Your task to perform on an android device: turn on priority inbox in the gmail app Image 0: 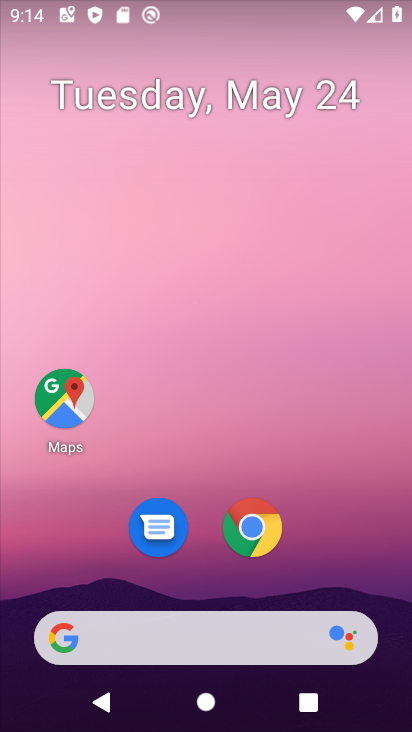
Step 0: drag from (203, 502) to (258, 85)
Your task to perform on an android device: turn on priority inbox in the gmail app Image 1: 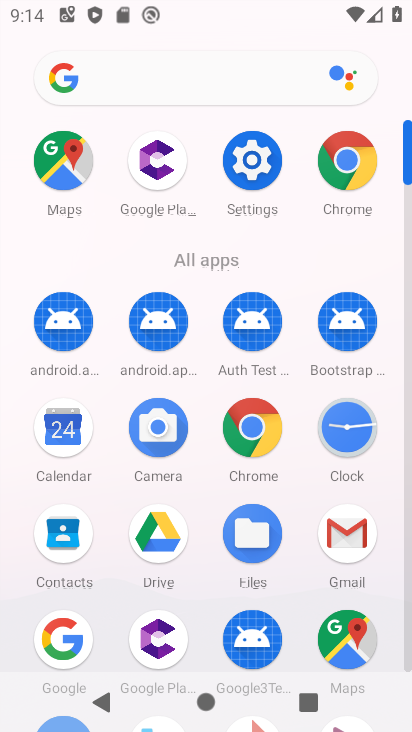
Step 1: click (329, 547)
Your task to perform on an android device: turn on priority inbox in the gmail app Image 2: 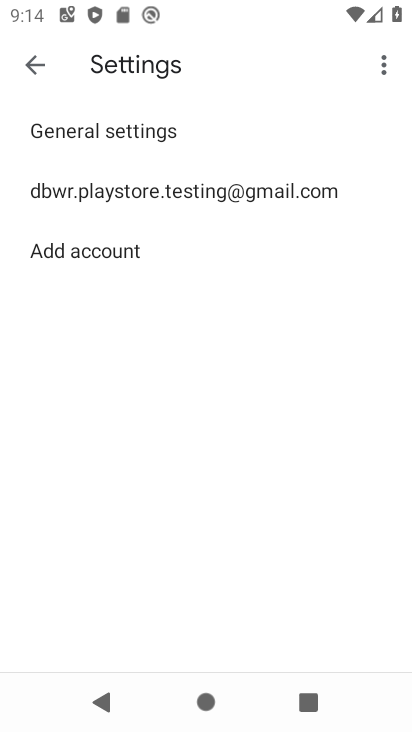
Step 2: click (95, 188)
Your task to perform on an android device: turn on priority inbox in the gmail app Image 3: 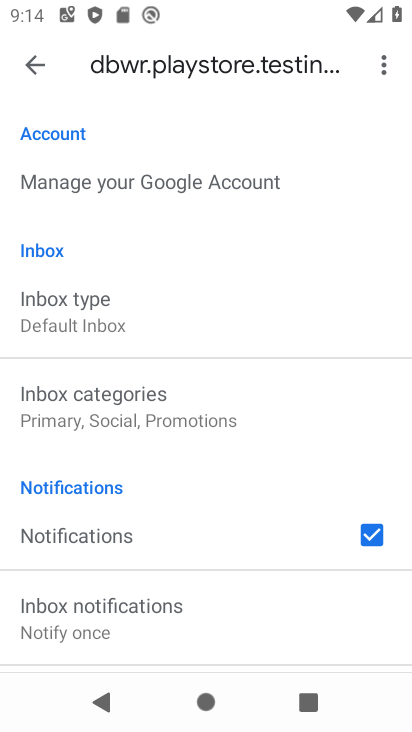
Step 3: click (100, 314)
Your task to perform on an android device: turn on priority inbox in the gmail app Image 4: 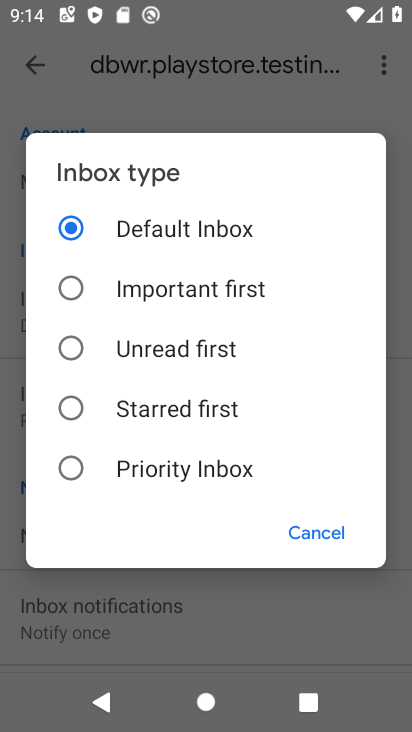
Step 4: click (74, 466)
Your task to perform on an android device: turn on priority inbox in the gmail app Image 5: 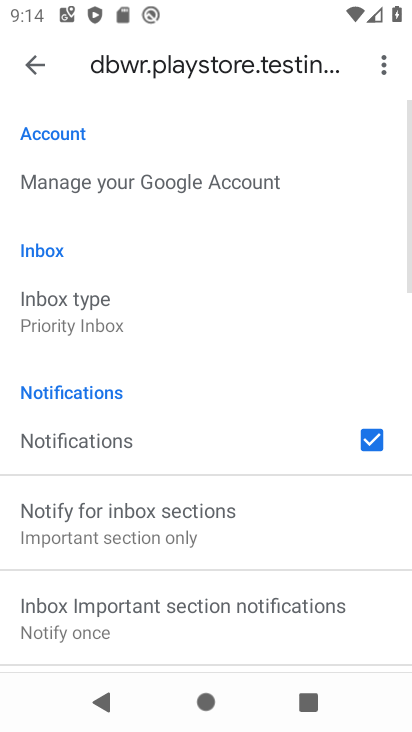
Step 5: task complete